Your task to perform on an android device: What's the news about the US dollar exchange rate? Image 0: 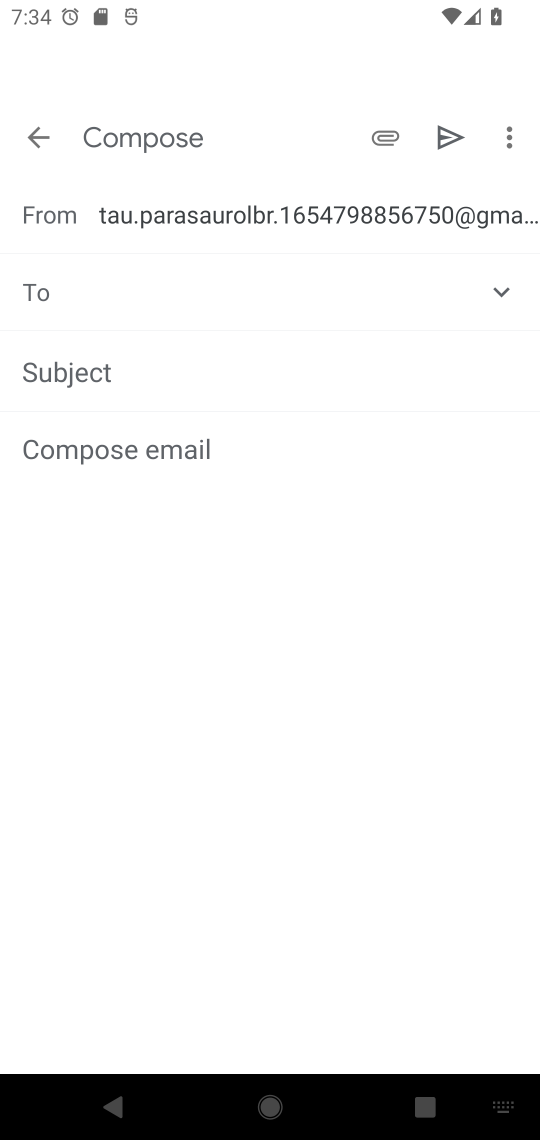
Step 0: press home button
Your task to perform on an android device: What's the news about the US dollar exchange rate? Image 1: 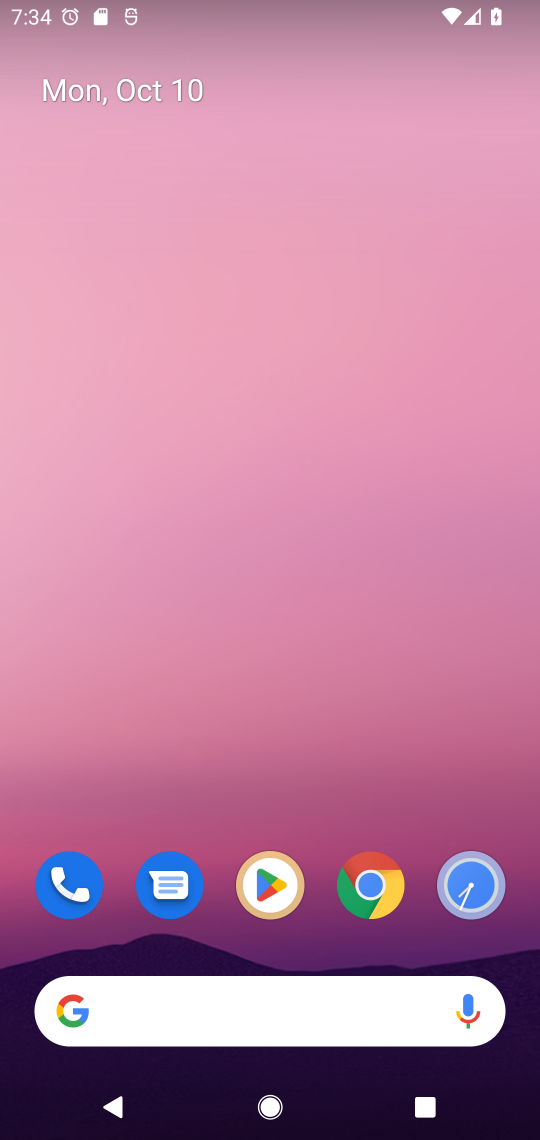
Step 1: click (370, 898)
Your task to perform on an android device: What's the news about the US dollar exchange rate? Image 2: 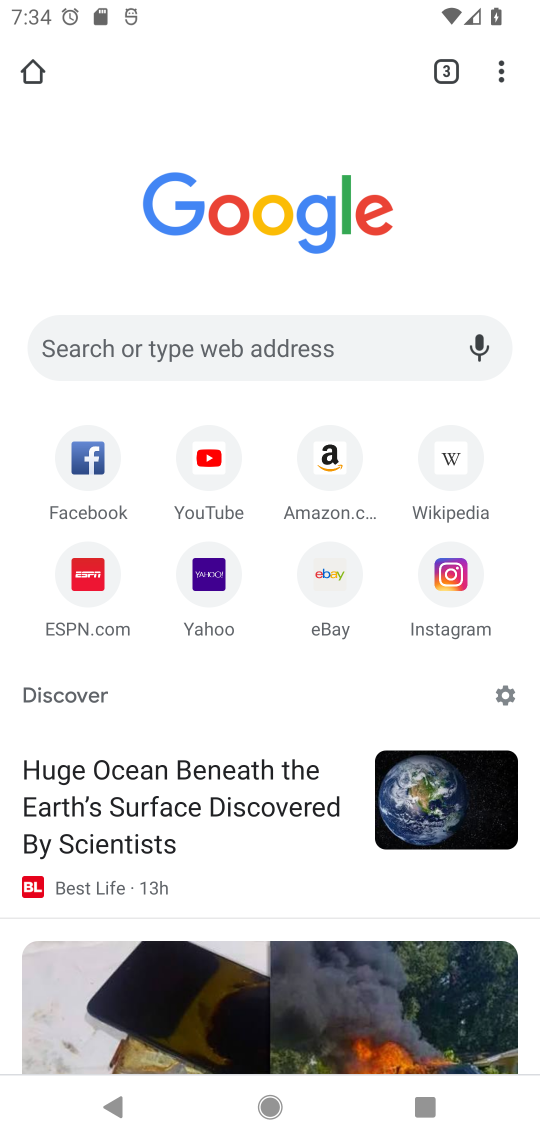
Step 2: click (177, 318)
Your task to perform on an android device: What's the news about the US dollar exchange rate? Image 3: 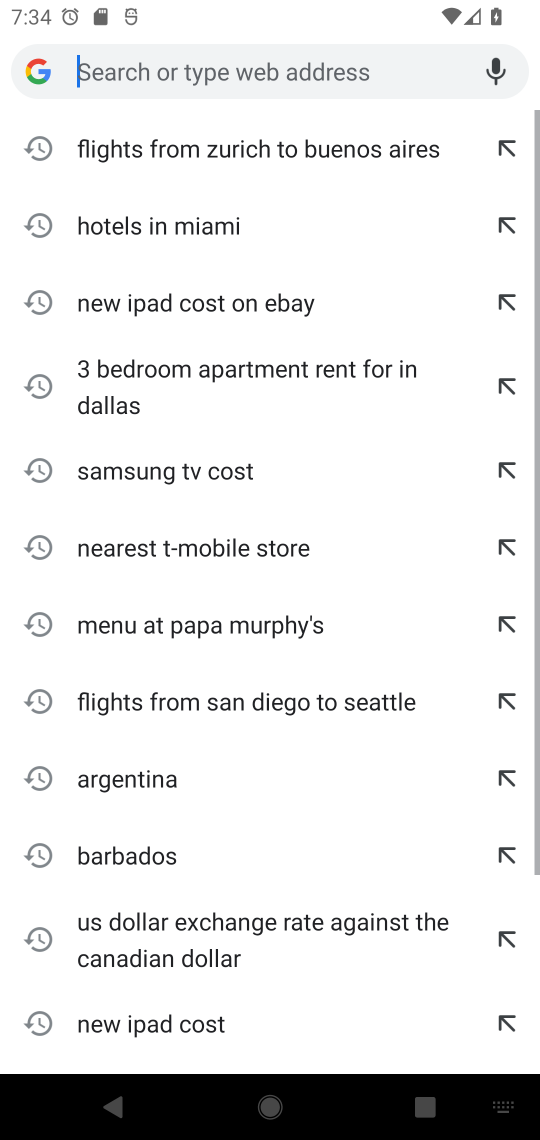
Step 3: click (177, 332)
Your task to perform on an android device: What's the news about the US dollar exchange rate? Image 4: 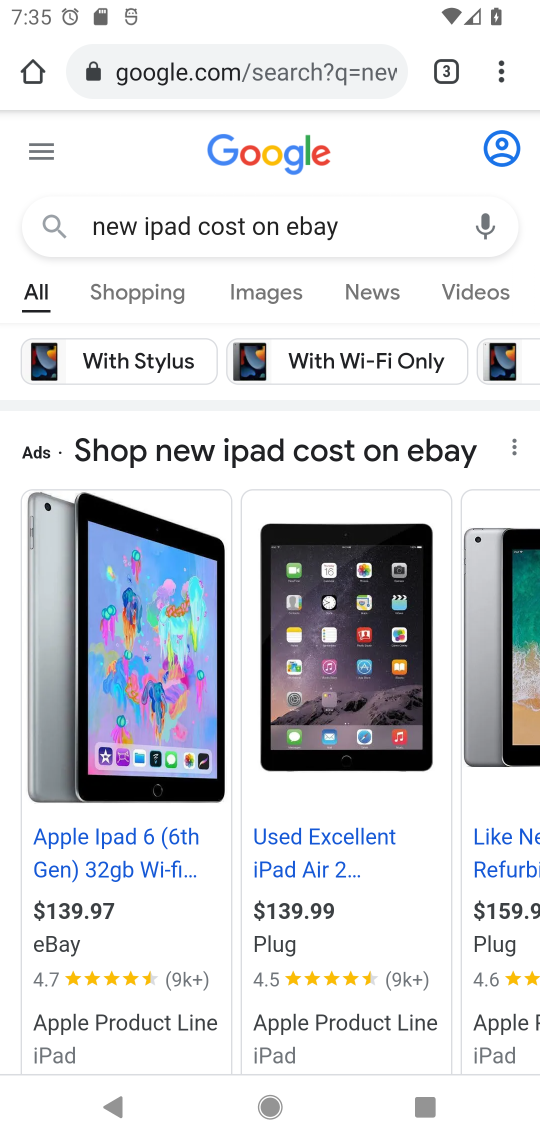
Step 4: type "news about the US dollar exchange rate"
Your task to perform on an android device: What's the news about the US dollar exchange rate? Image 5: 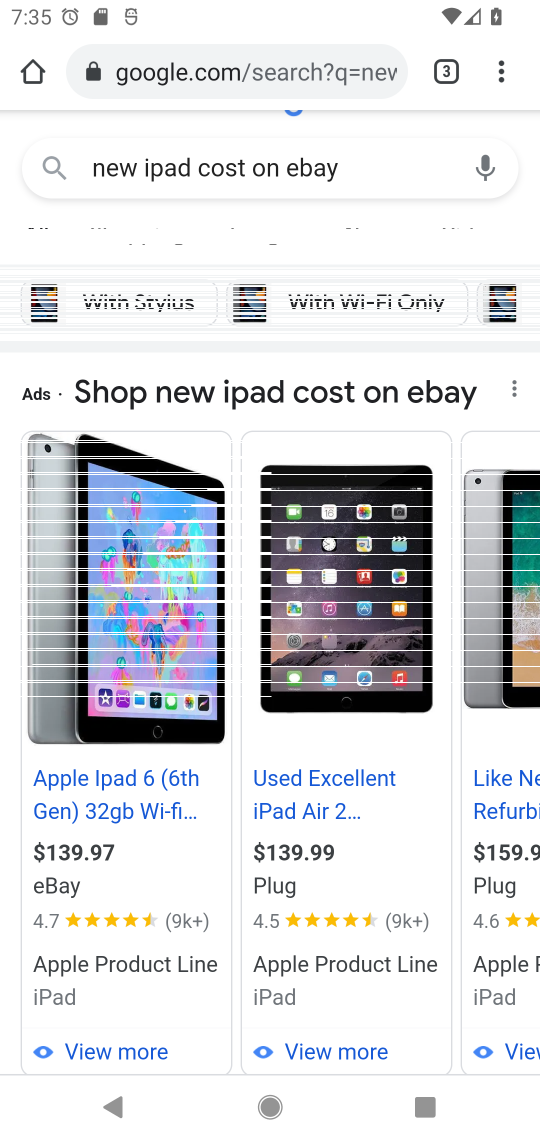
Step 5: type ""
Your task to perform on an android device: What's the news about the US dollar exchange rate? Image 6: 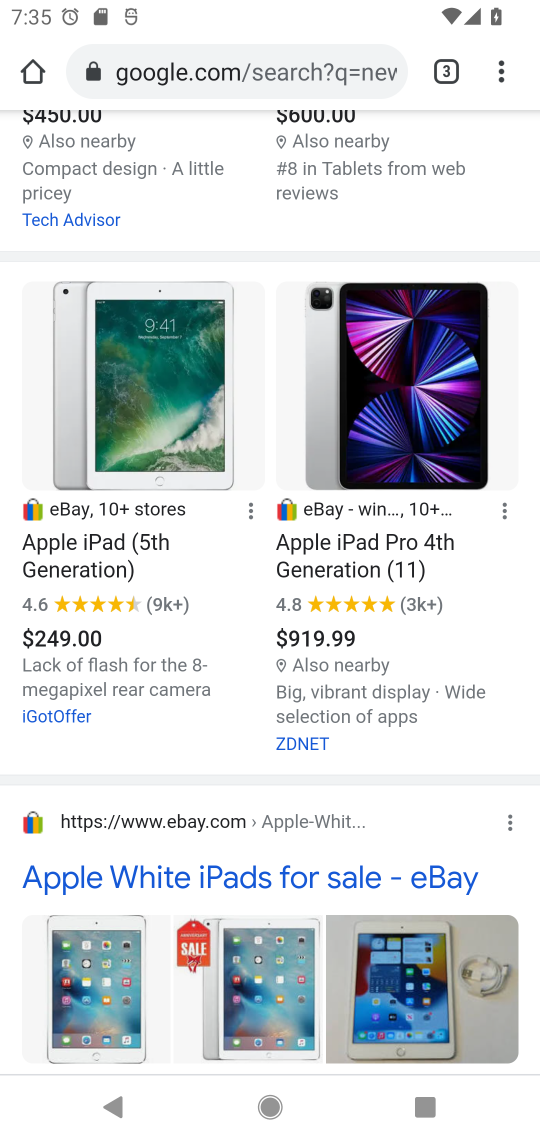
Step 6: drag from (415, 807) to (380, 597)
Your task to perform on an android device: What's the news about the US dollar exchange rate? Image 7: 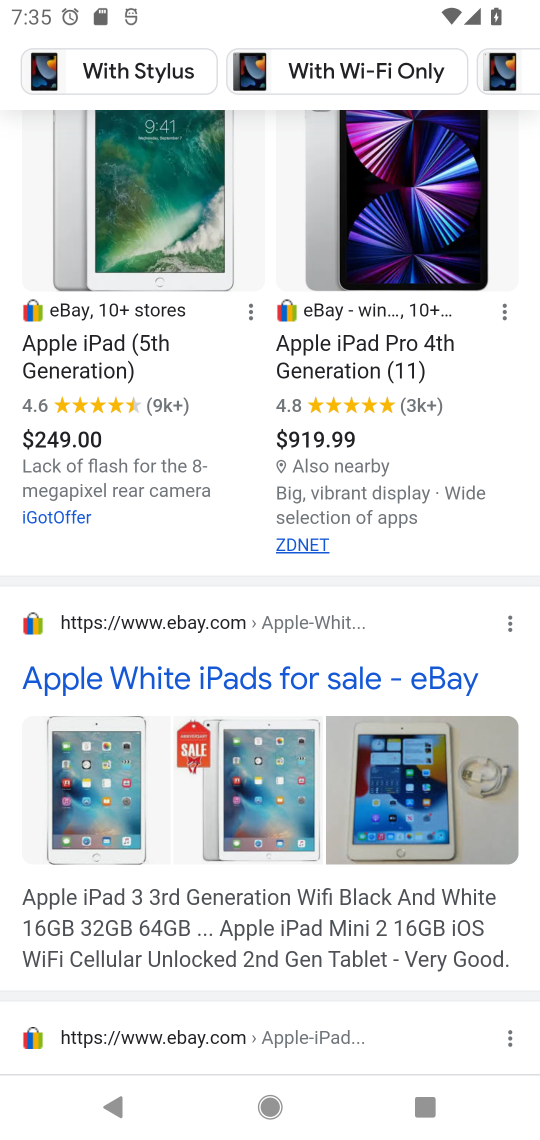
Step 7: drag from (267, 315) to (441, 954)
Your task to perform on an android device: What's the news about the US dollar exchange rate? Image 8: 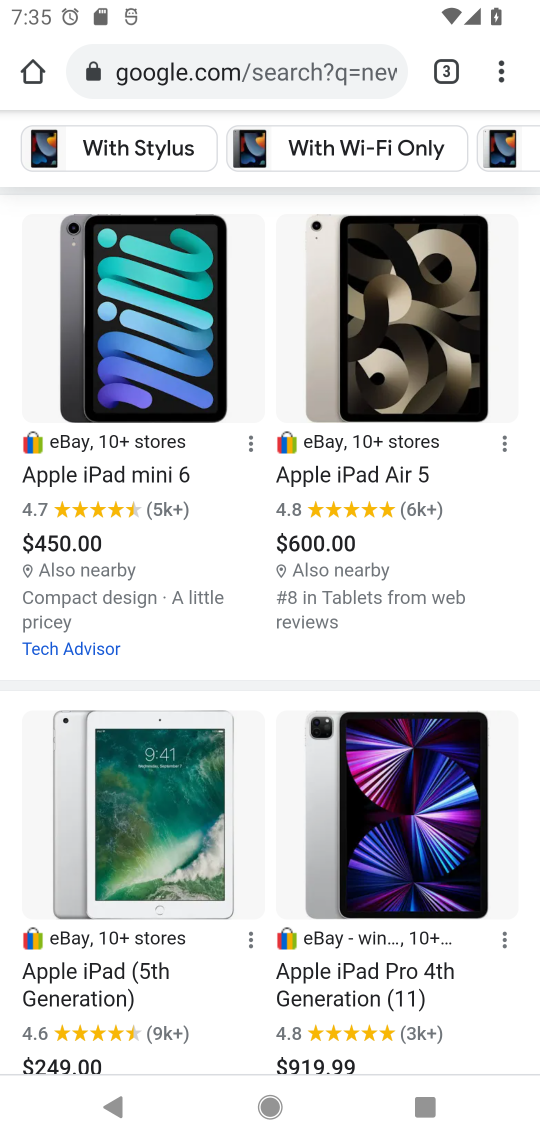
Step 8: click (325, 83)
Your task to perform on an android device: What's the news about the US dollar exchange rate? Image 9: 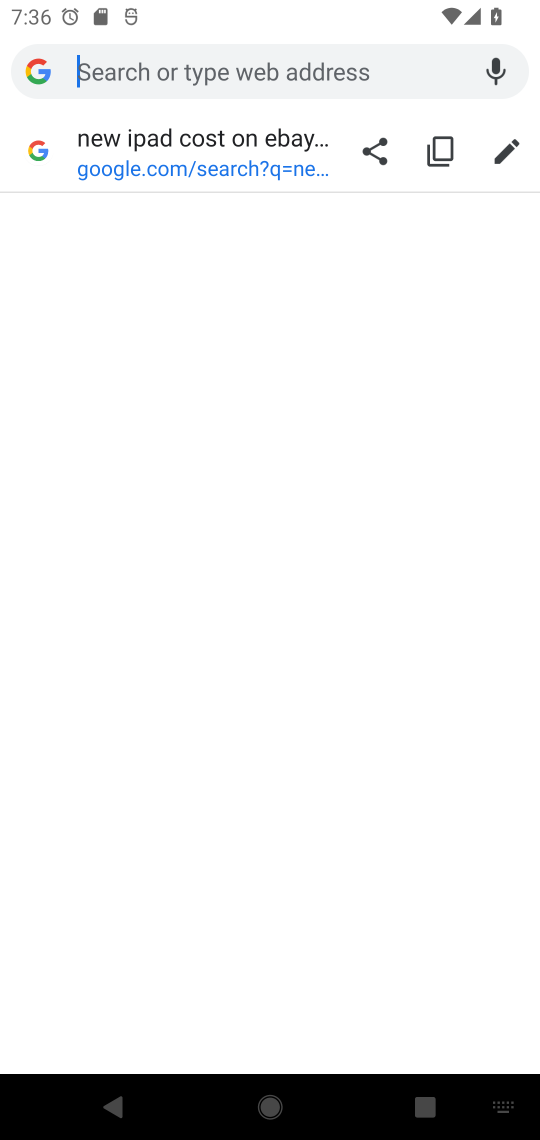
Step 9: type "news about the US dollar exchange rate"
Your task to perform on an android device: What's the news about the US dollar exchange rate? Image 10: 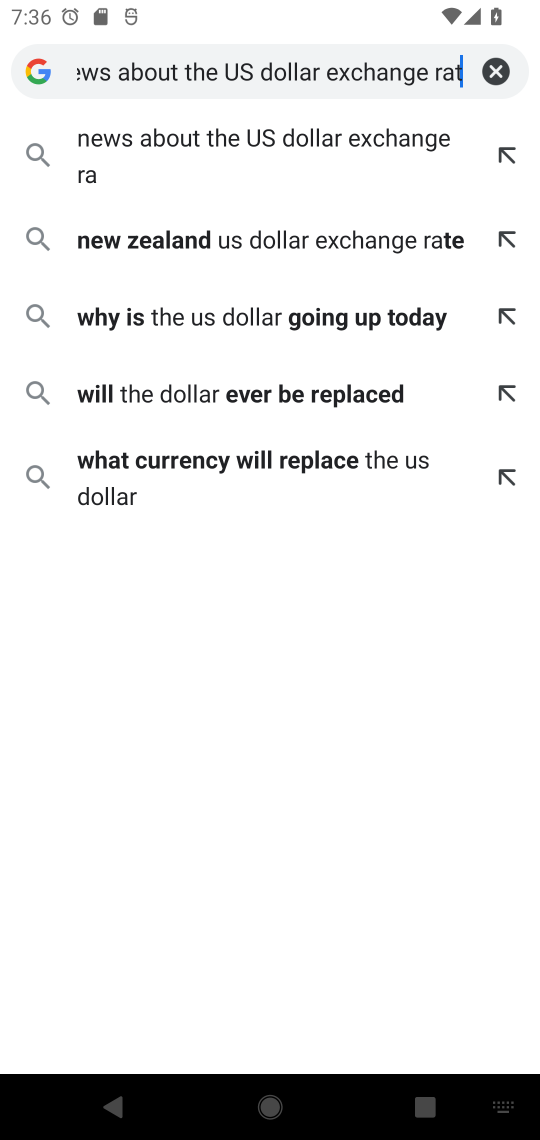
Step 10: type ""
Your task to perform on an android device: What's the news about the US dollar exchange rate? Image 11: 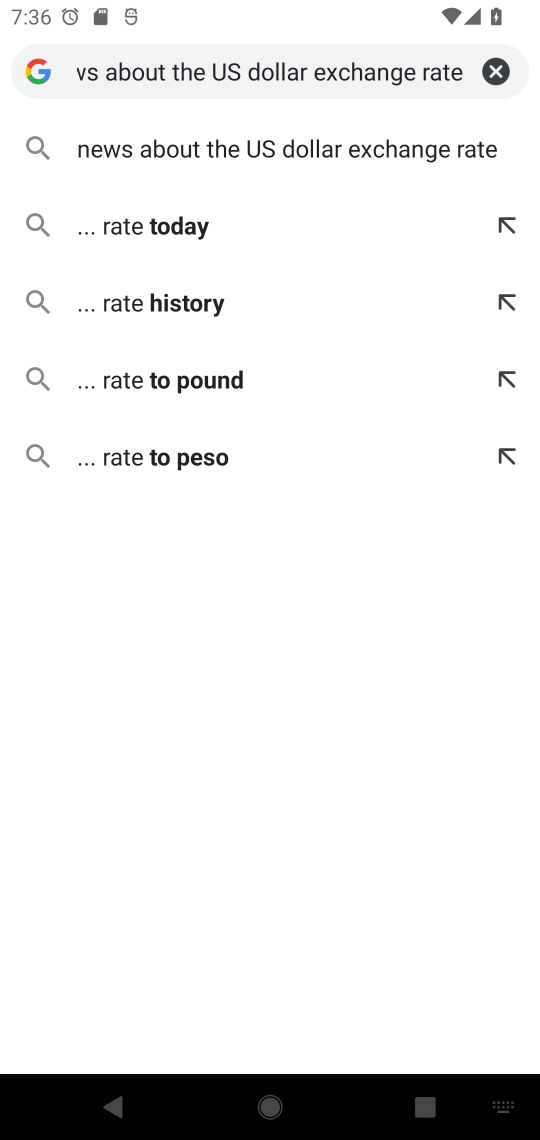
Step 11: press enter
Your task to perform on an android device: What's the news about the US dollar exchange rate? Image 12: 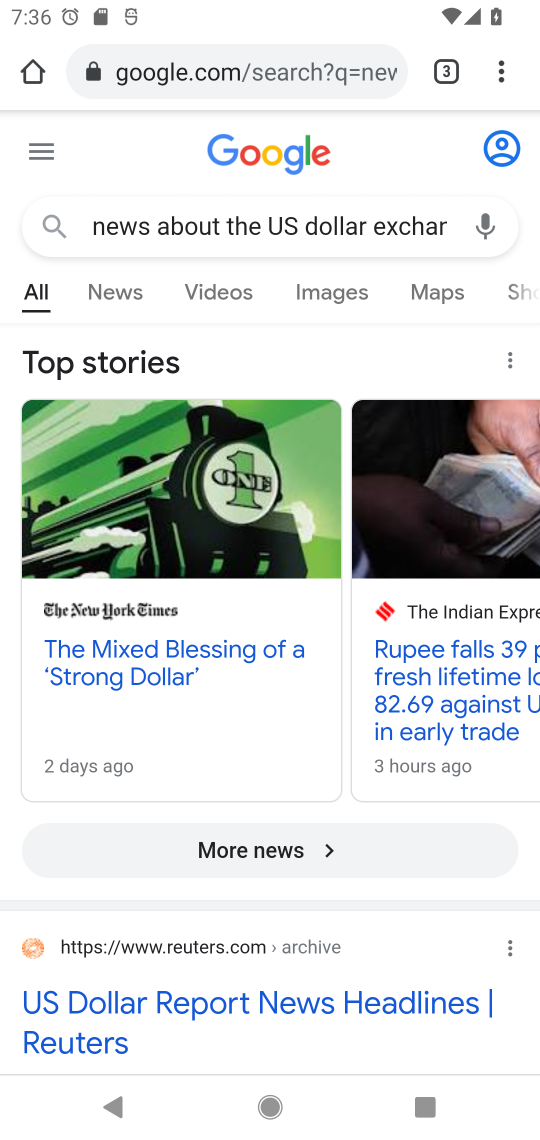
Step 12: click (98, 293)
Your task to perform on an android device: What's the news about the US dollar exchange rate? Image 13: 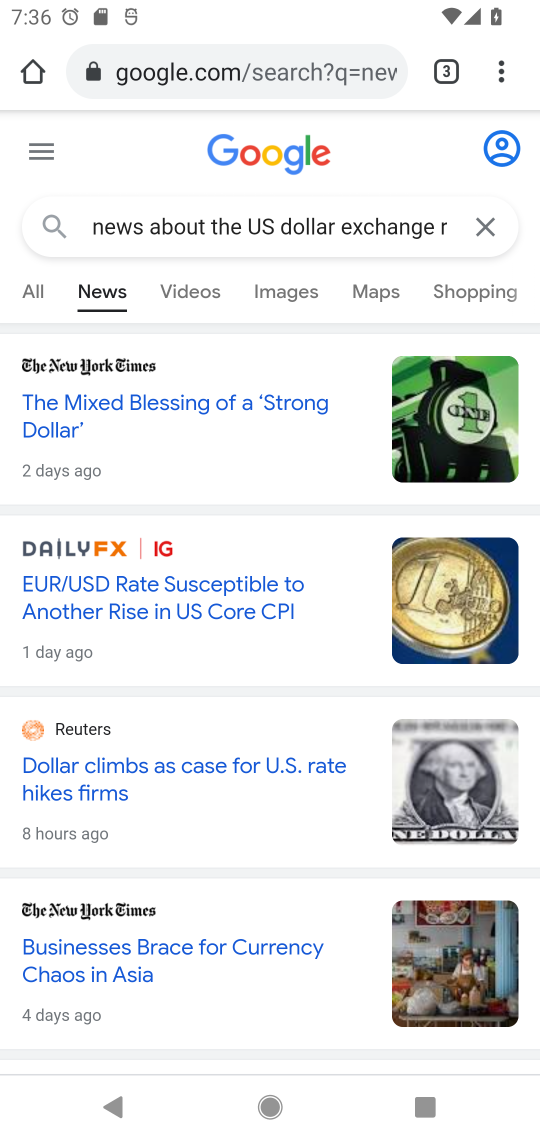
Step 13: task complete